Your task to perform on an android device: What's the weather going to be this weekend? Image 0: 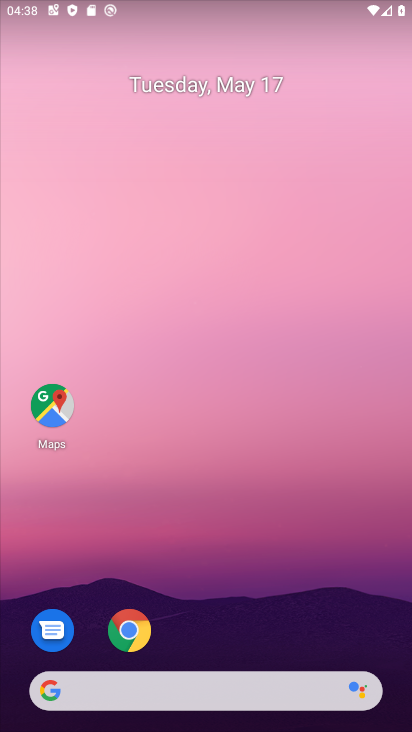
Step 0: drag from (238, 618) to (245, 142)
Your task to perform on an android device: What's the weather going to be this weekend? Image 1: 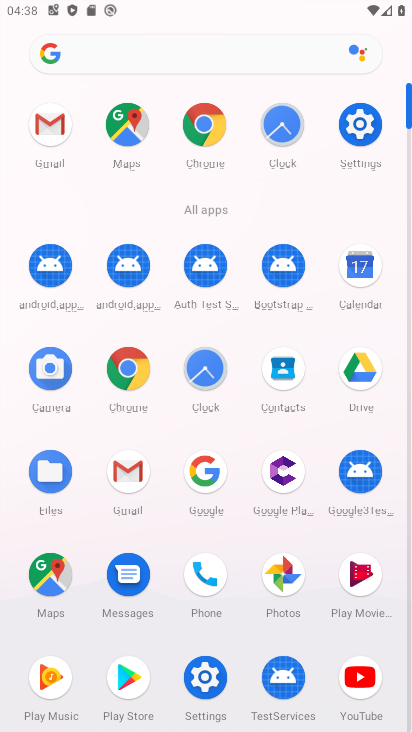
Step 1: click (205, 107)
Your task to perform on an android device: What's the weather going to be this weekend? Image 2: 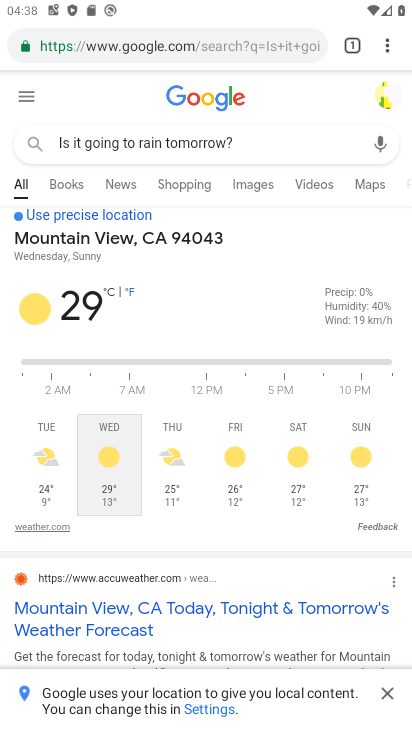
Step 2: click (299, 142)
Your task to perform on an android device: What's the weather going to be this weekend? Image 3: 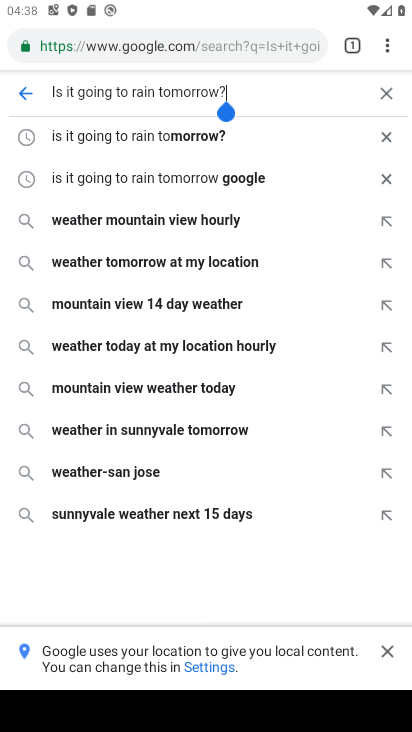
Step 3: click (384, 92)
Your task to perform on an android device: What's the weather going to be this weekend? Image 4: 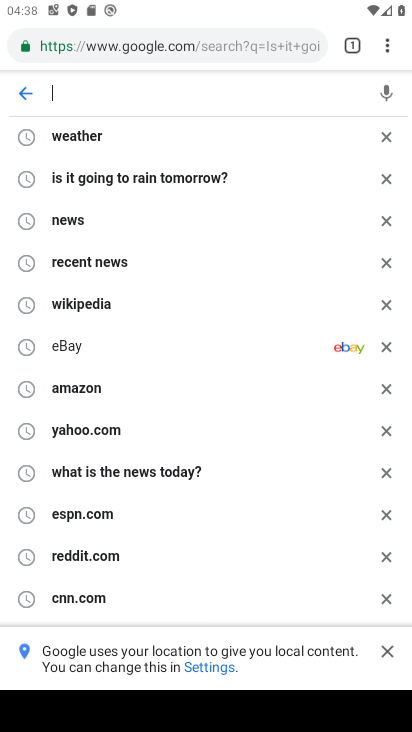
Step 4: type "What's the weather going to be this weekend?"
Your task to perform on an android device: What's the weather going to be this weekend? Image 5: 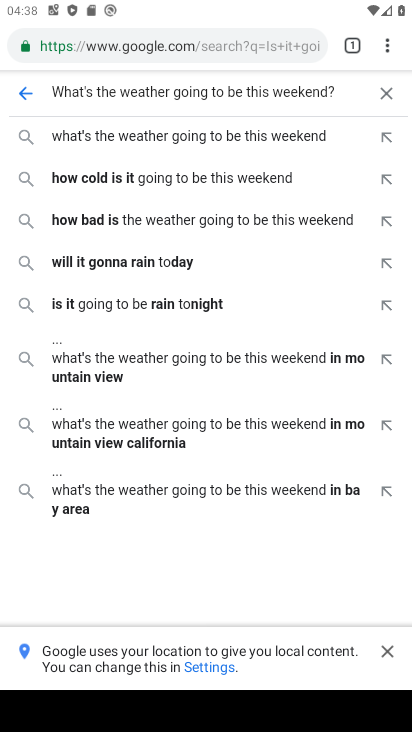
Step 5: click (164, 145)
Your task to perform on an android device: What's the weather going to be this weekend? Image 6: 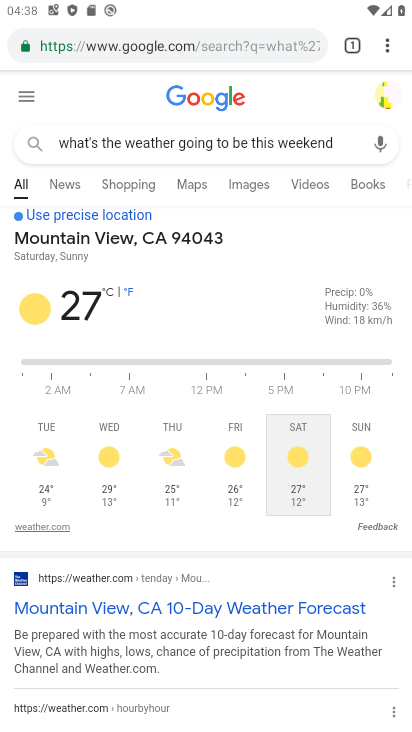
Step 6: task complete